Your task to perform on an android device: add a label to a message in the gmail app Image 0: 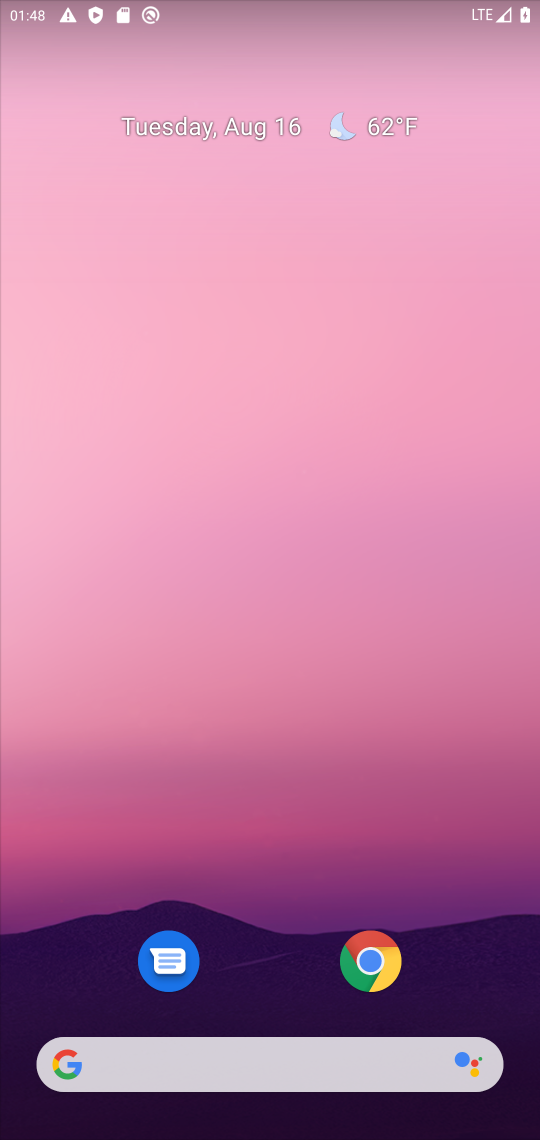
Step 0: press home button
Your task to perform on an android device: add a label to a message in the gmail app Image 1: 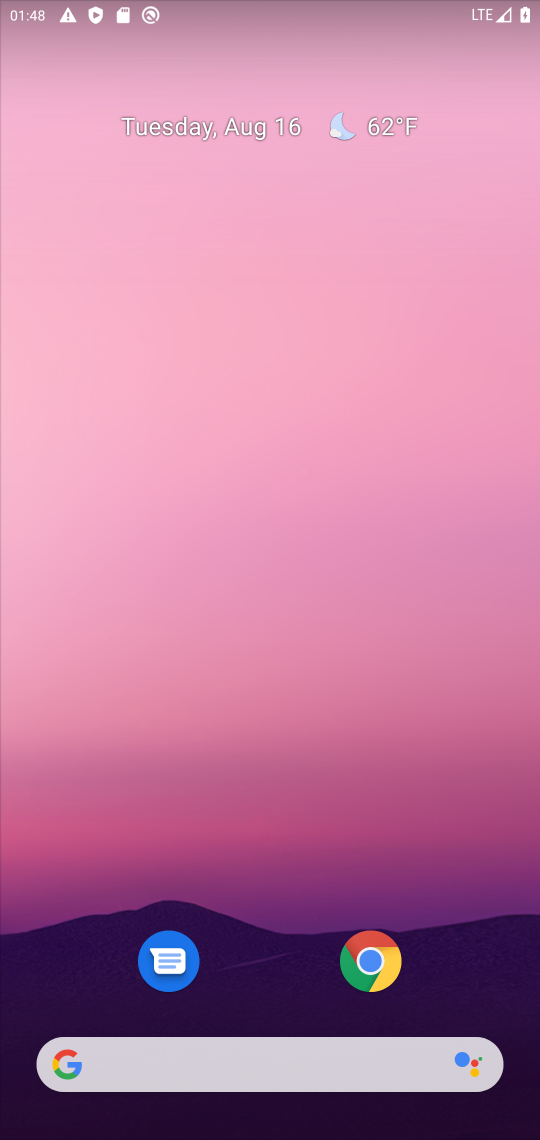
Step 1: drag from (273, 966) to (520, 144)
Your task to perform on an android device: add a label to a message in the gmail app Image 2: 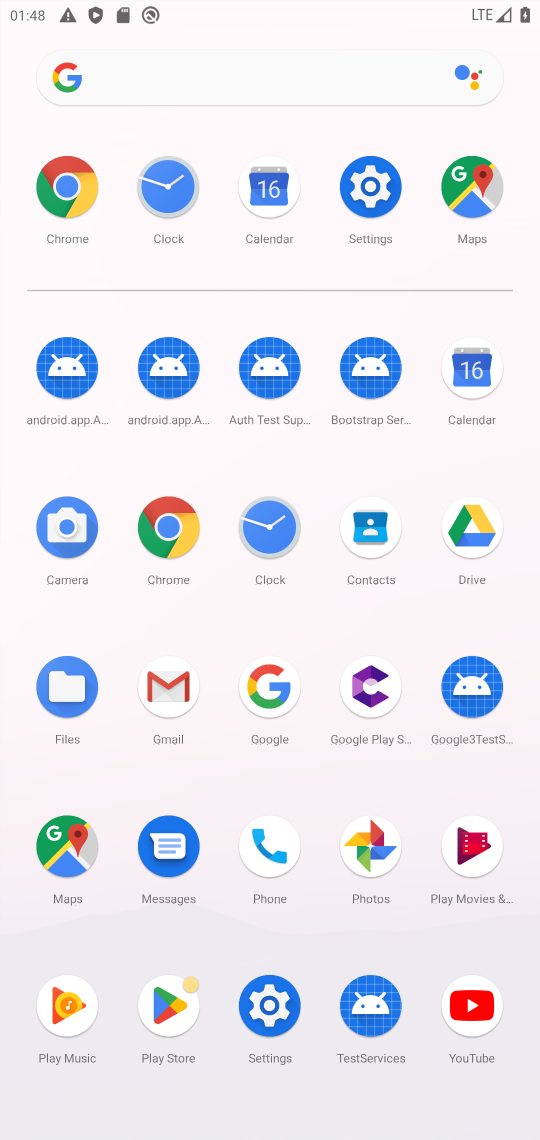
Step 2: click (162, 699)
Your task to perform on an android device: add a label to a message in the gmail app Image 3: 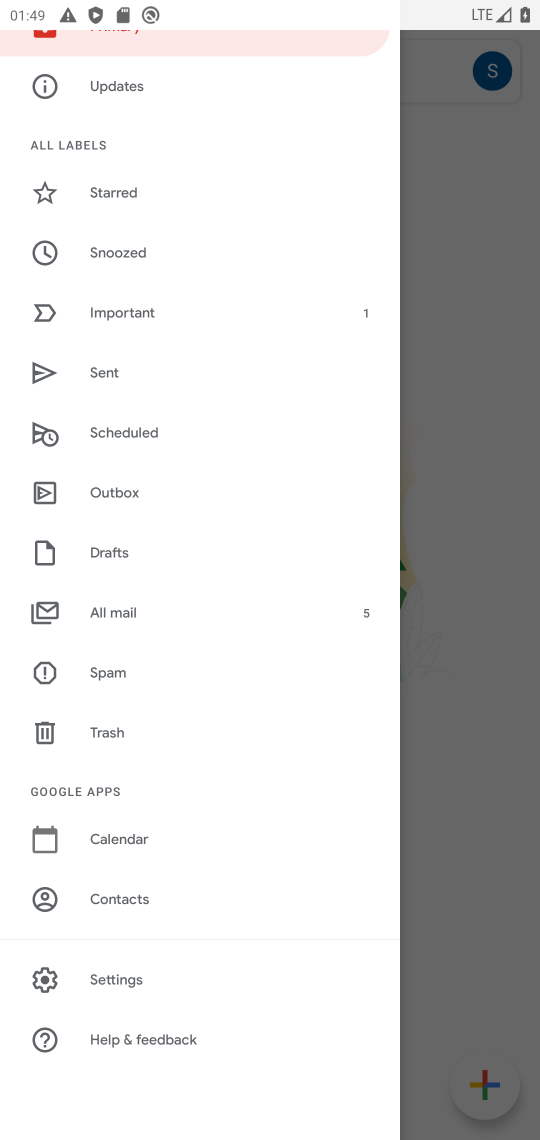
Step 3: click (497, 493)
Your task to perform on an android device: add a label to a message in the gmail app Image 4: 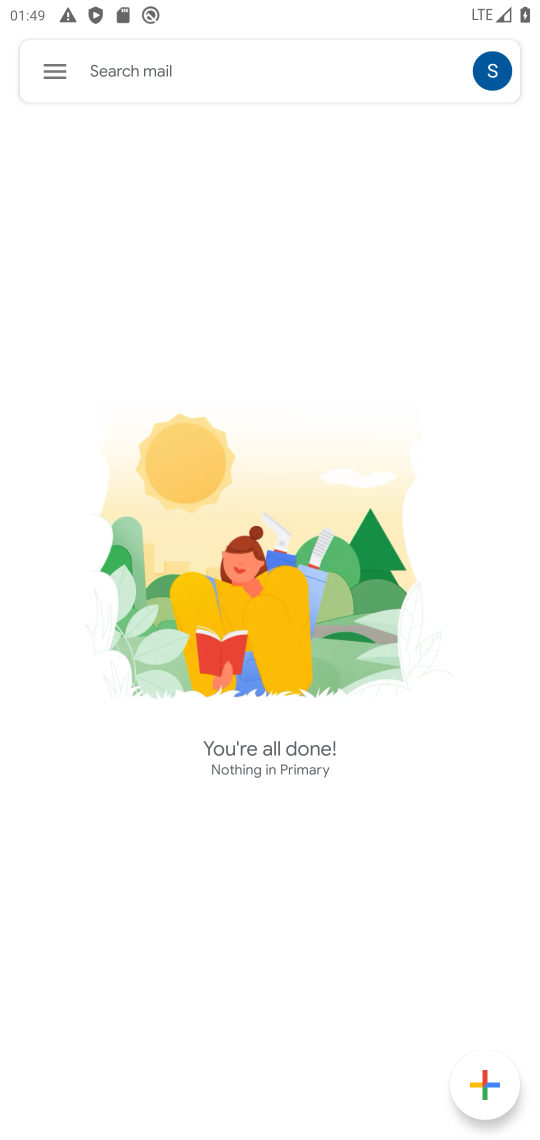
Step 4: task complete